Your task to perform on an android device: Go to Google maps Image 0: 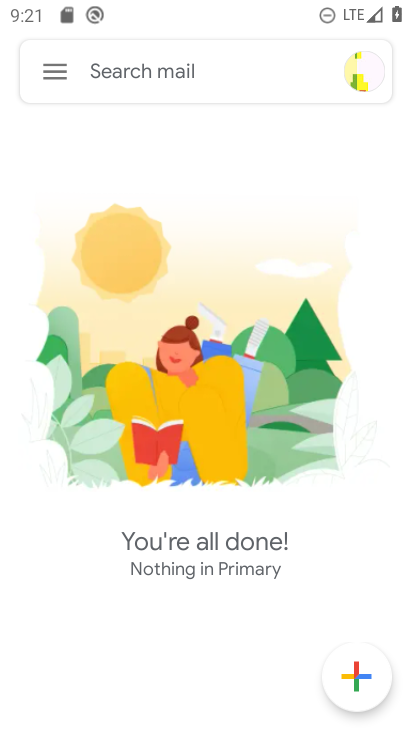
Step 0: press home button
Your task to perform on an android device: Go to Google maps Image 1: 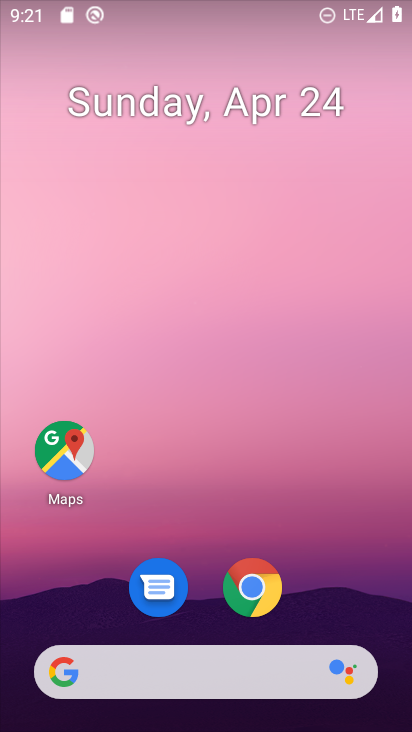
Step 1: drag from (328, 585) to (308, 110)
Your task to perform on an android device: Go to Google maps Image 2: 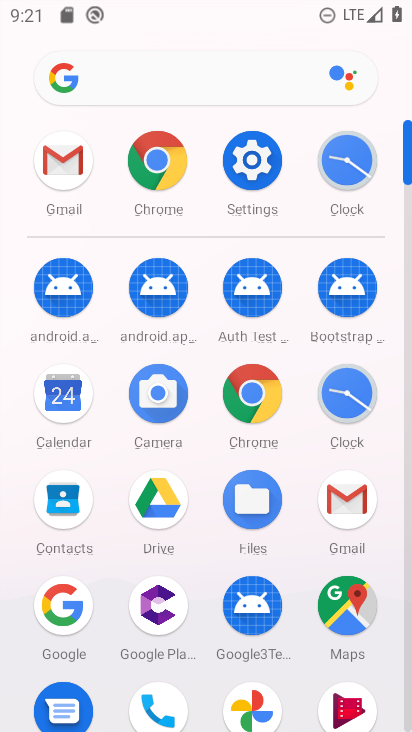
Step 2: click (66, 597)
Your task to perform on an android device: Go to Google maps Image 3: 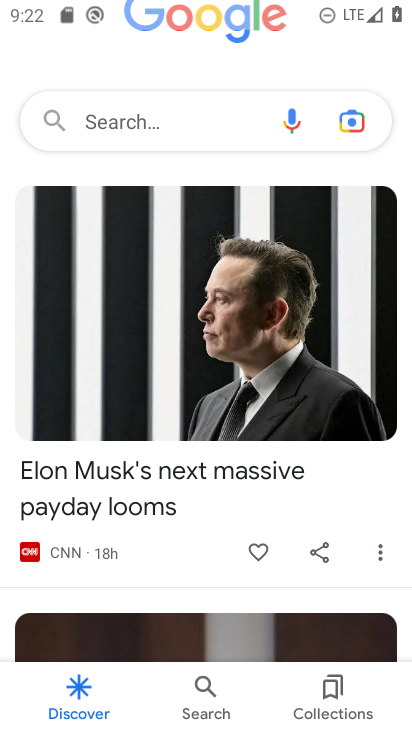
Step 3: press home button
Your task to perform on an android device: Go to Google maps Image 4: 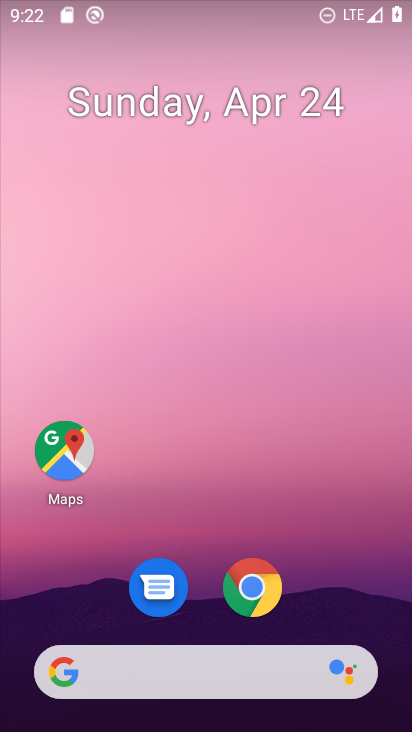
Step 4: drag from (385, 583) to (351, 168)
Your task to perform on an android device: Go to Google maps Image 5: 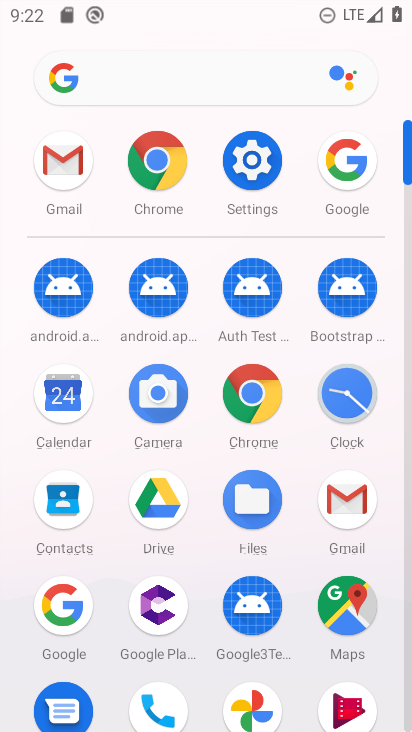
Step 5: click (359, 589)
Your task to perform on an android device: Go to Google maps Image 6: 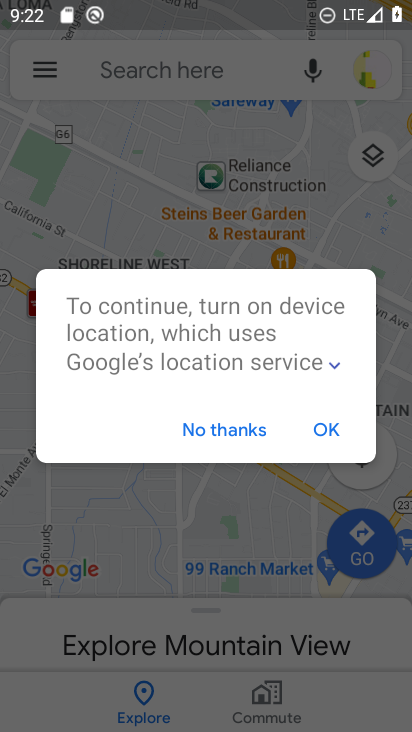
Step 6: click (223, 437)
Your task to perform on an android device: Go to Google maps Image 7: 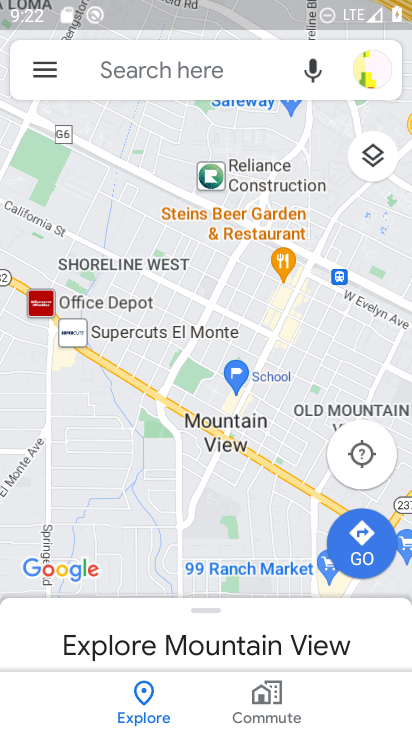
Step 7: task complete